Your task to perform on an android device: turn on priority inbox in the gmail app Image 0: 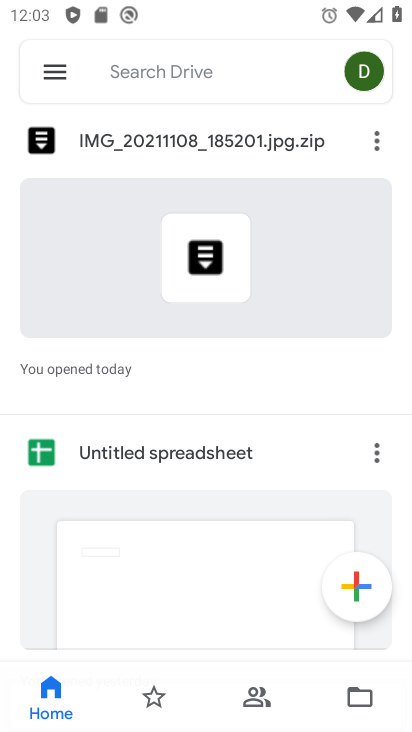
Step 0: press home button
Your task to perform on an android device: turn on priority inbox in the gmail app Image 1: 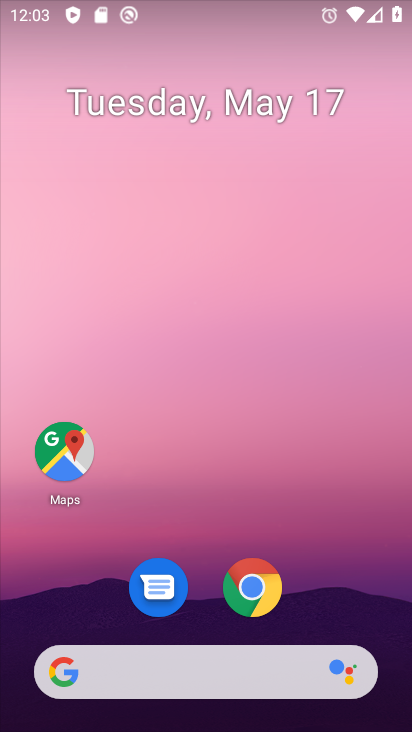
Step 1: drag from (393, 654) to (257, 94)
Your task to perform on an android device: turn on priority inbox in the gmail app Image 2: 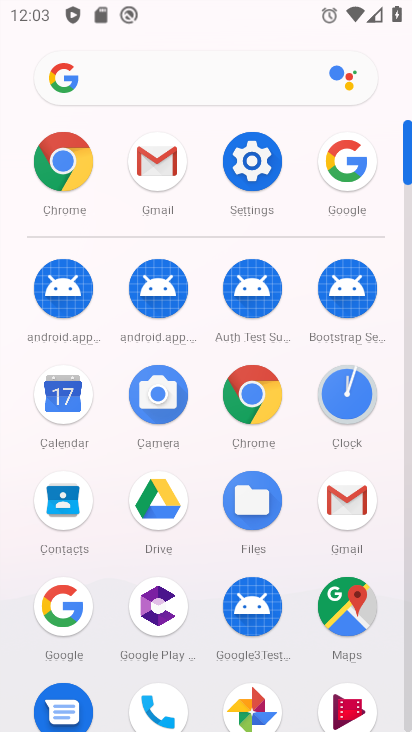
Step 2: click (342, 516)
Your task to perform on an android device: turn on priority inbox in the gmail app Image 3: 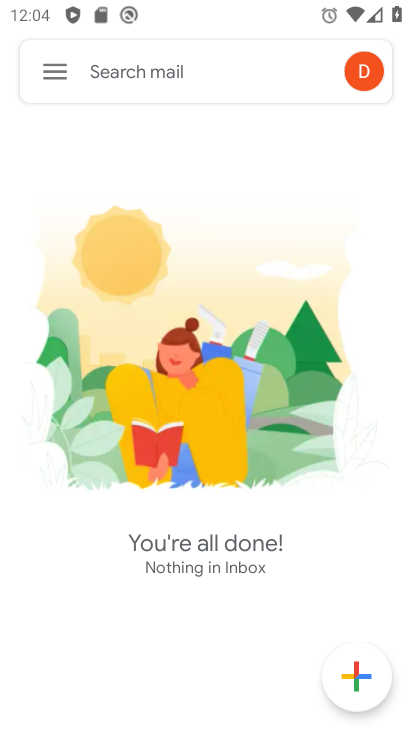
Step 3: click (55, 75)
Your task to perform on an android device: turn on priority inbox in the gmail app Image 4: 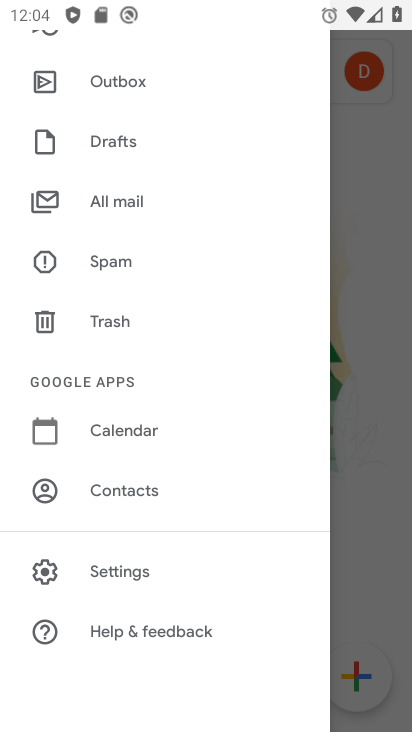
Step 4: click (135, 575)
Your task to perform on an android device: turn on priority inbox in the gmail app Image 5: 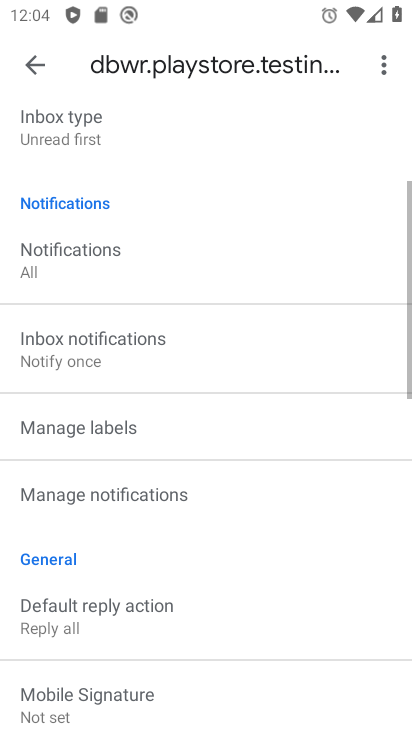
Step 5: click (86, 109)
Your task to perform on an android device: turn on priority inbox in the gmail app Image 6: 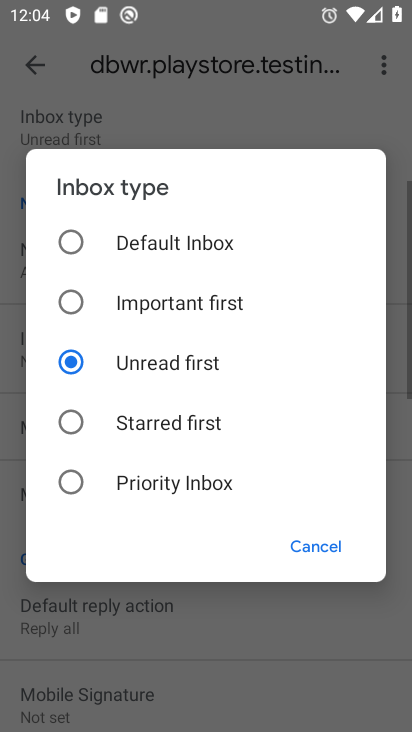
Step 6: click (64, 476)
Your task to perform on an android device: turn on priority inbox in the gmail app Image 7: 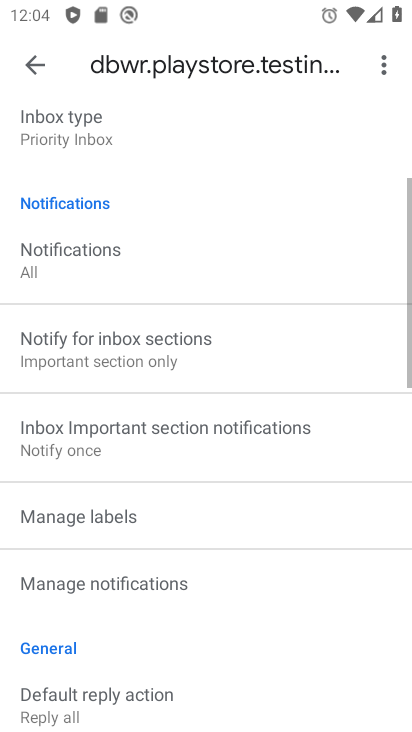
Step 7: task complete